Your task to perform on an android device: Go to Google maps Image 0: 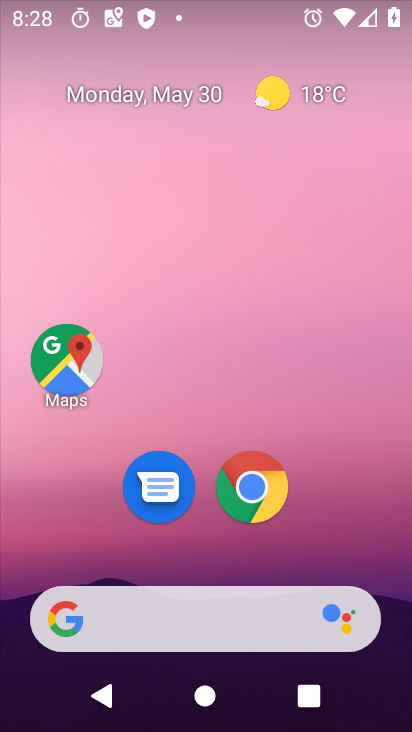
Step 0: press home button
Your task to perform on an android device: Go to Google maps Image 1: 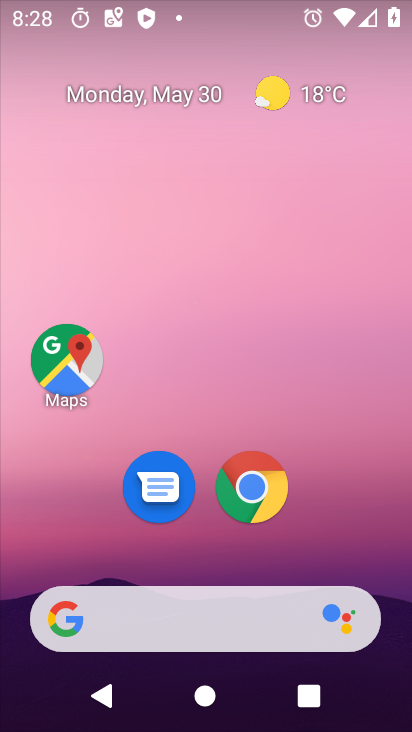
Step 1: drag from (310, 538) to (331, 73)
Your task to perform on an android device: Go to Google maps Image 2: 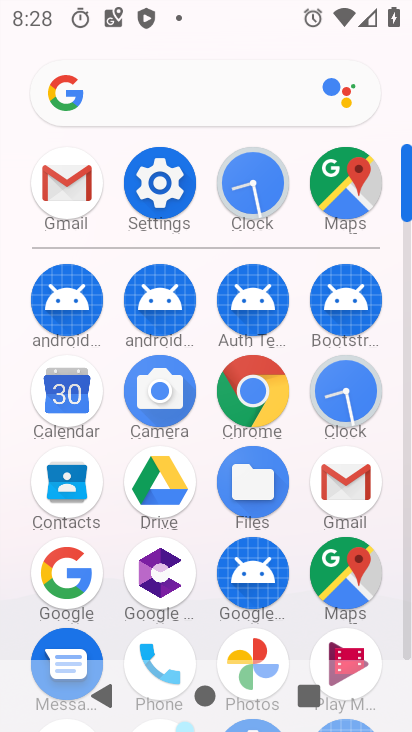
Step 2: click (353, 181)
Your task to perform on an android device: Go to Google maps Image 3: 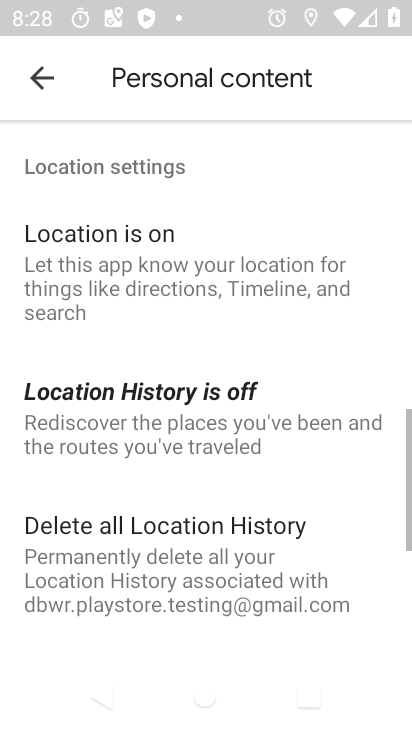
Step 3: click (43, 82)
Your task to perform on an android device: Go to Google maps Image 4: 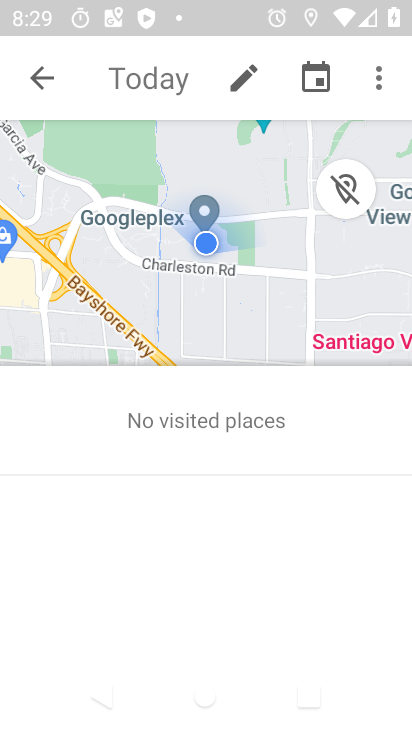
Step 4: task complete